Your task to perform on an android device: Open location settings Image 0: 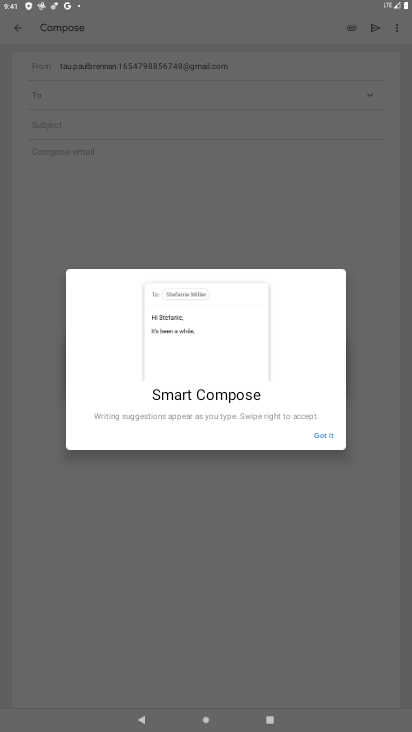
Step 0: press home button
Your task to perform on an android device: Open location settings Image 1: 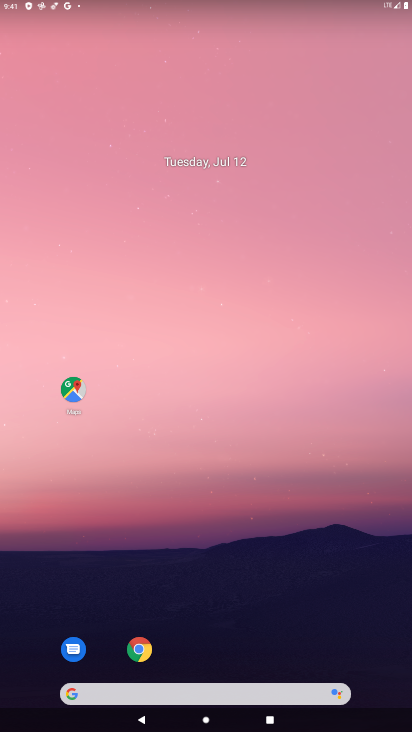
Step 1: drag from (265, 632) to (303, 327)
Your task to perform on an android device: Open location settings Image 2: 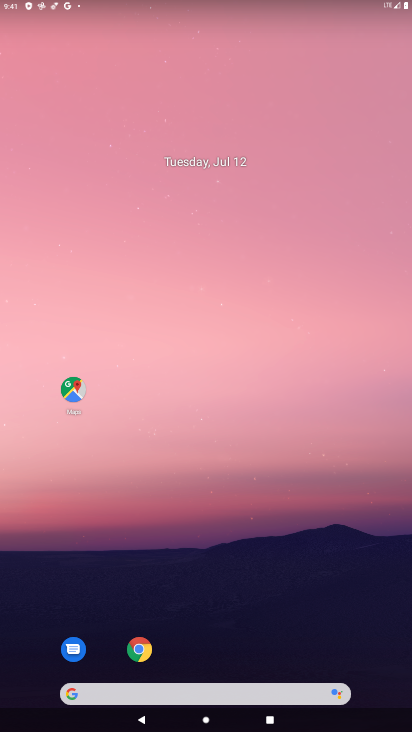
Step 2: drag from (311, 599) to (347, 267)
Your task to perform on an android device: Open location settings Image 3: 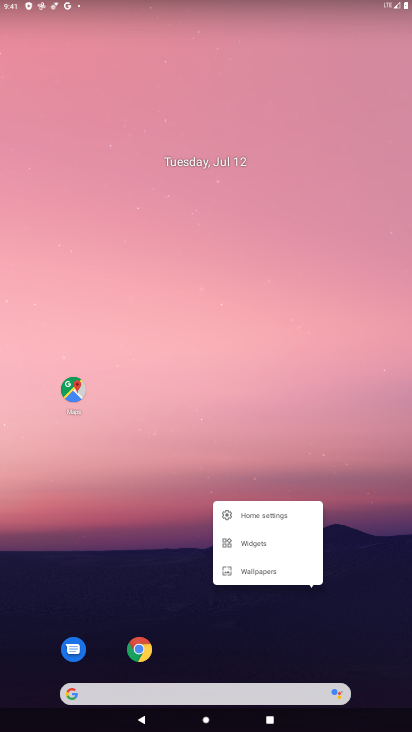
Step 3: click (347, 267)
Your task to perform on an android device: Open location settings Image 4: 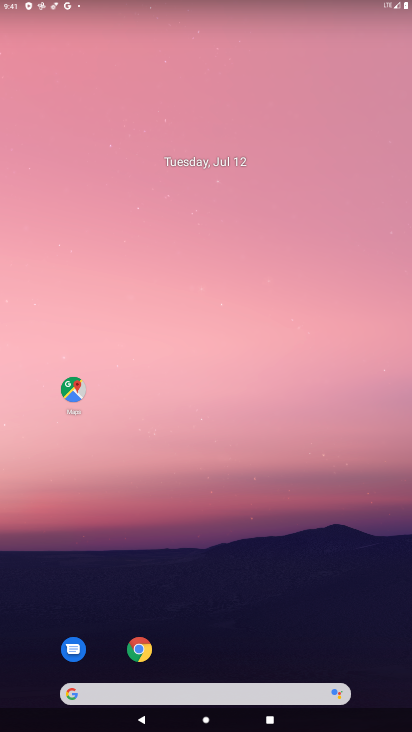
Step 4: drag from (279, 622) to (323, 114)
Your task to perform on an android device: Open location settings Image 5: 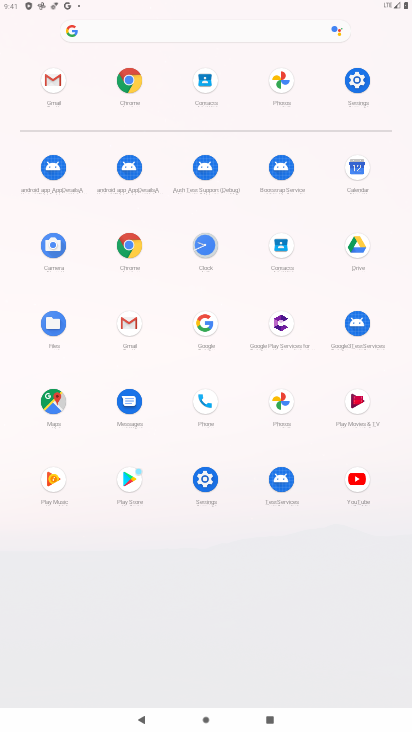
Step 5: click (335, 102)
Your task to perform on an android device: Open location settings Image 6: 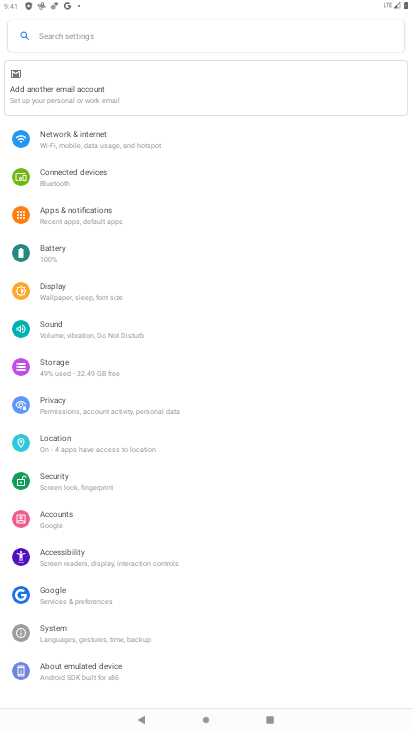
Step 6: click (62, 460)
Your task to perform on an android device: Open location settings Image 7: 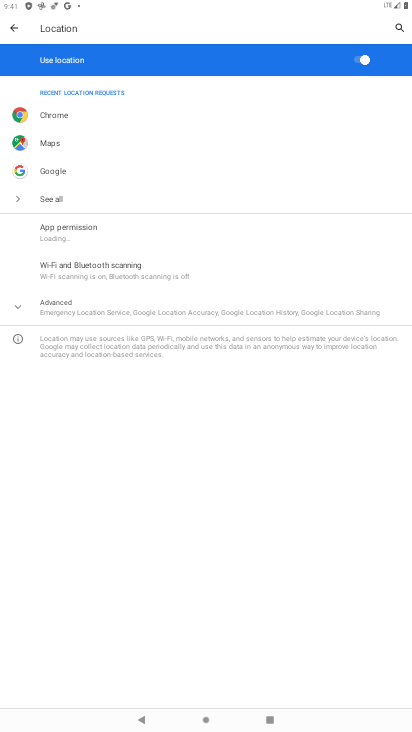
Step 7: task complete